Your task to perform on an android device: Open Wikipedia Image 0: 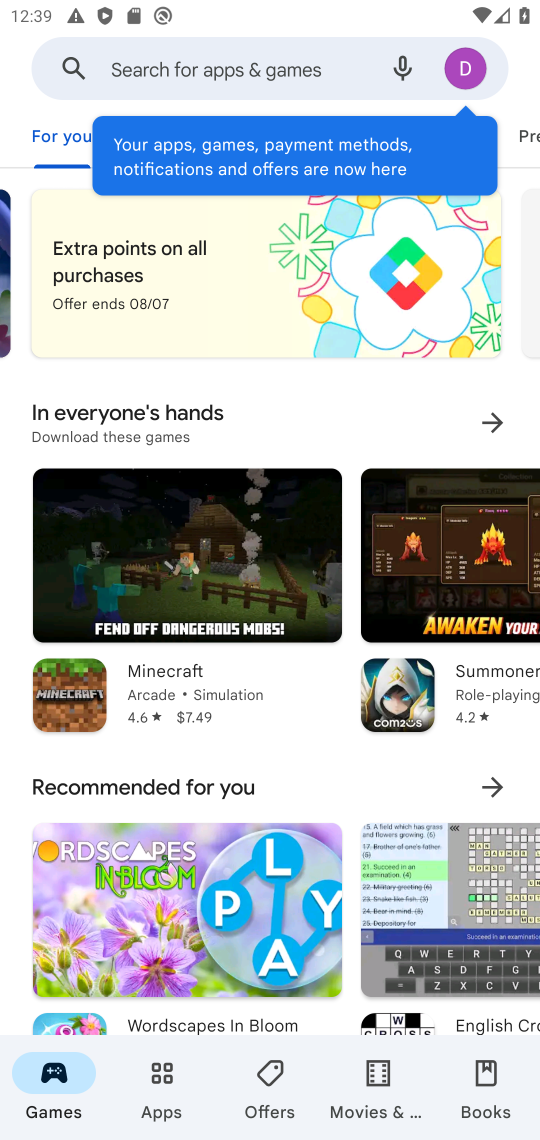
Step 0: press home button
Your task to perform on an android device: Open Wikipedia Image 1: 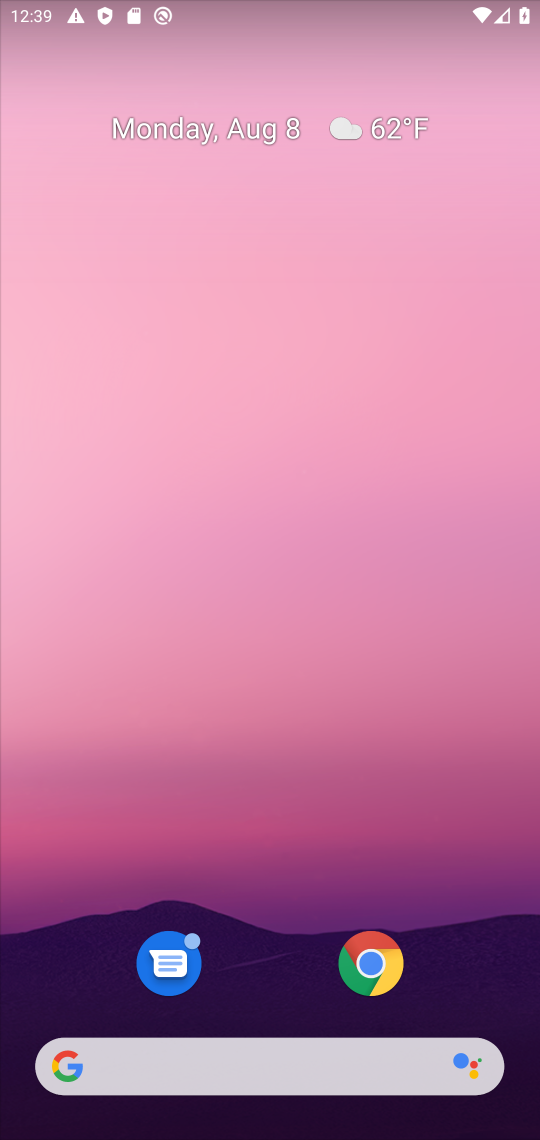
Step 1: drag from (434, 949) to (297, 88)
Your task to perform on an android device: Open Wikipedia Image 2: 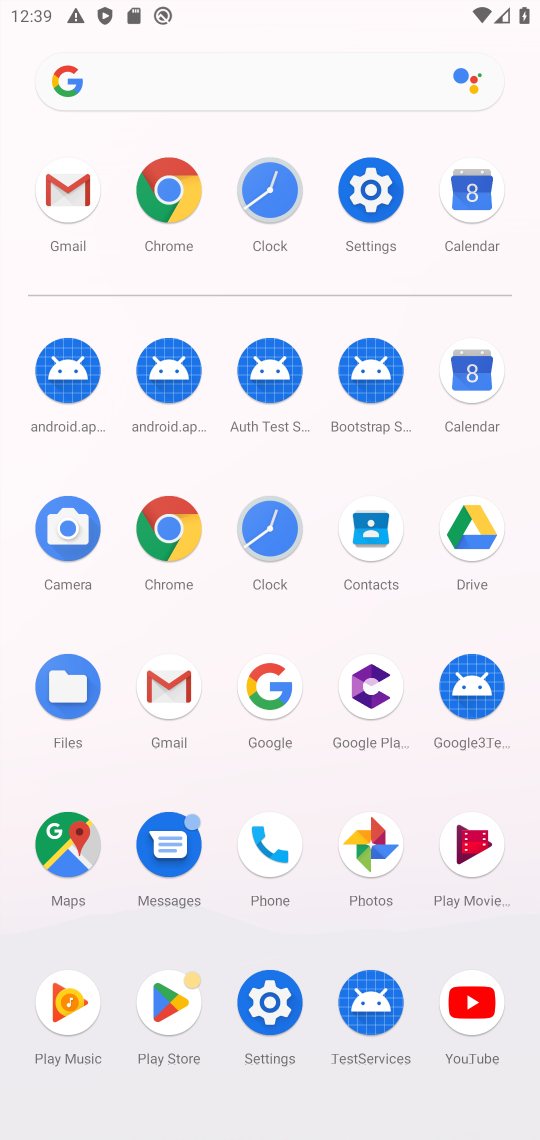
Step 2: click (278, 681)
Your task to perform on an android device: Open Wikipedia Image 3: 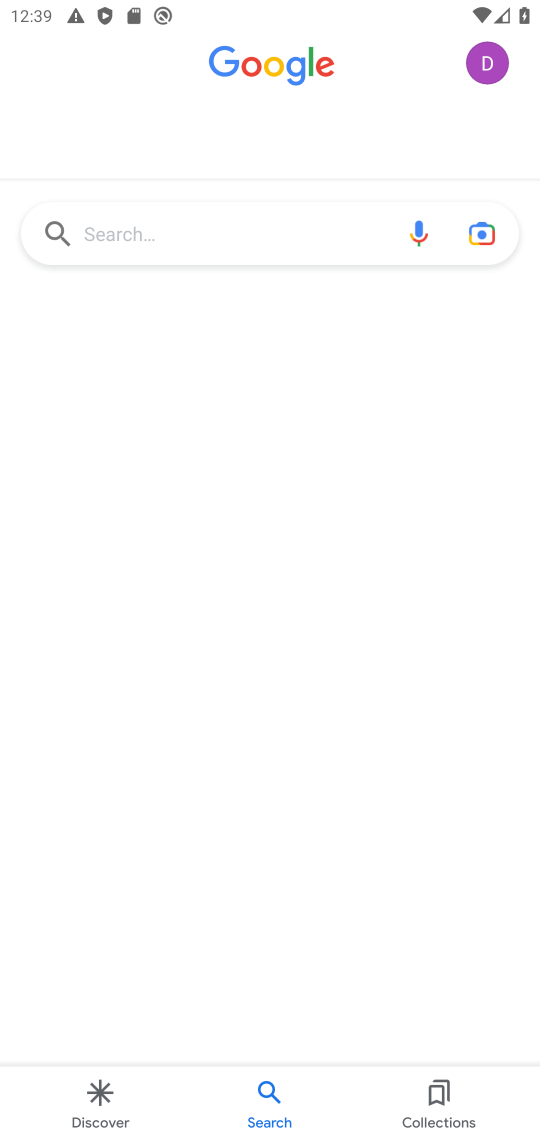
Step 3: click (198, 236)
Your task to perform on an android device: Open Wikipedia Image 4: 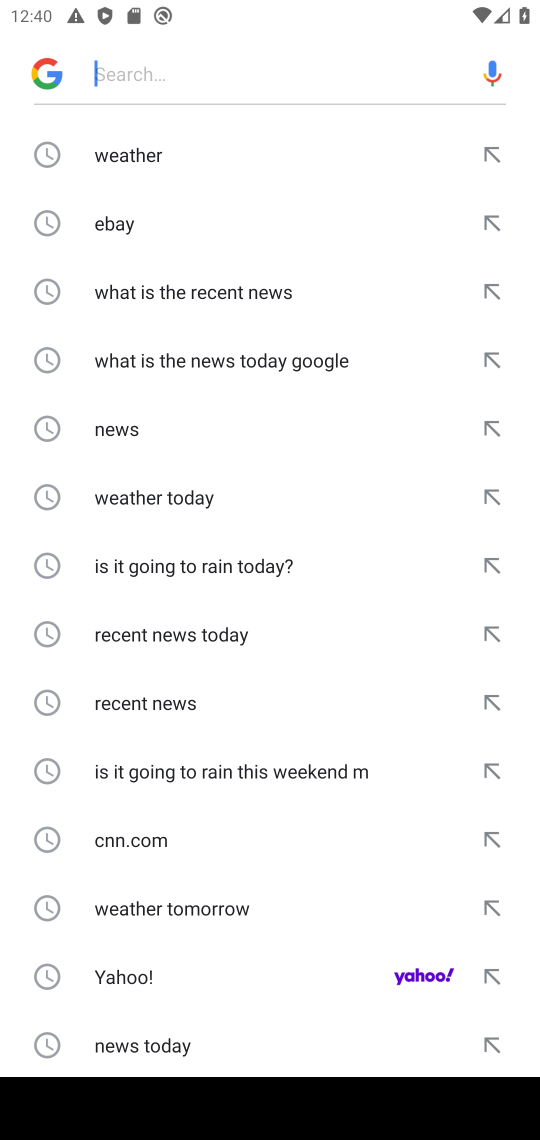
Step 4: type "Wikipedia"
Your task to perform on an android device: Open Wikipedia Image 5: 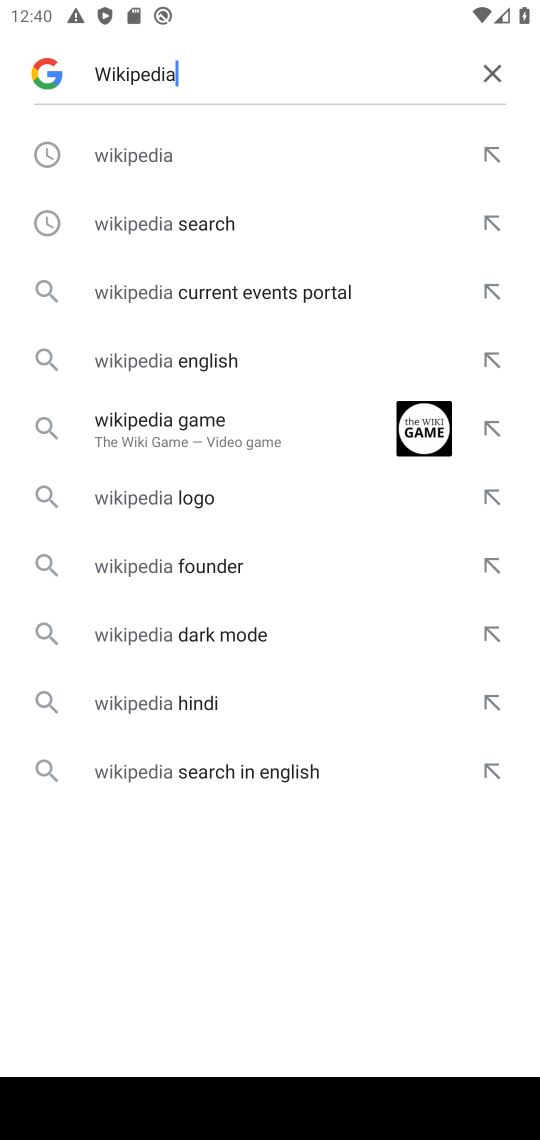
Step 5: click (180, 172)
Your task to perform on an android device: Open Wikipedia Image 6: 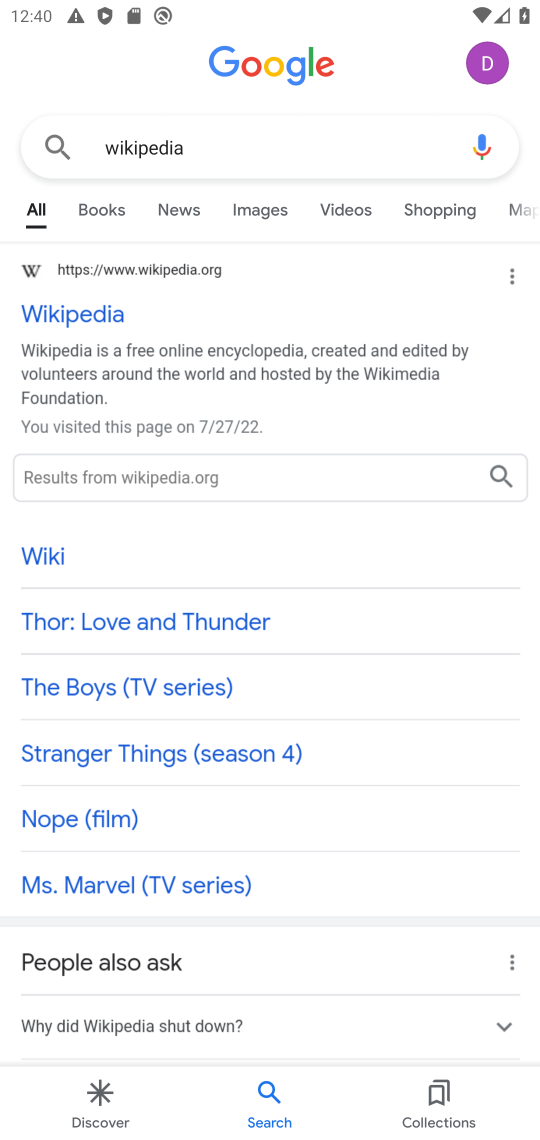
Step 6: task complete